Your task to perform on an android device: add a contact in the contacts app Image 0: 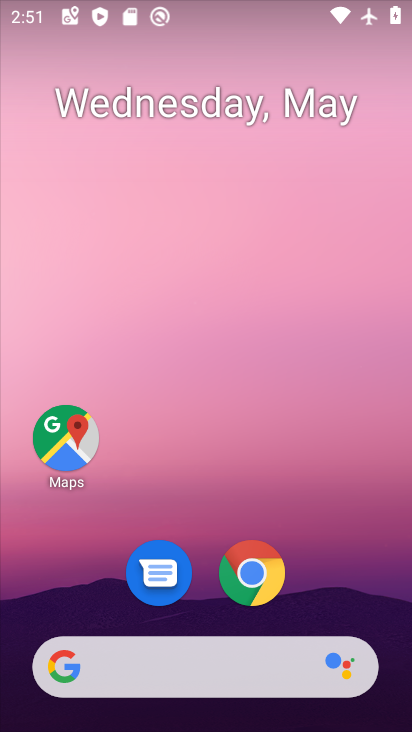
Step 0: drag from (324, 409) to (351, 44)
Your task to perform on an android device: add a contact in the contacts app Image 1: 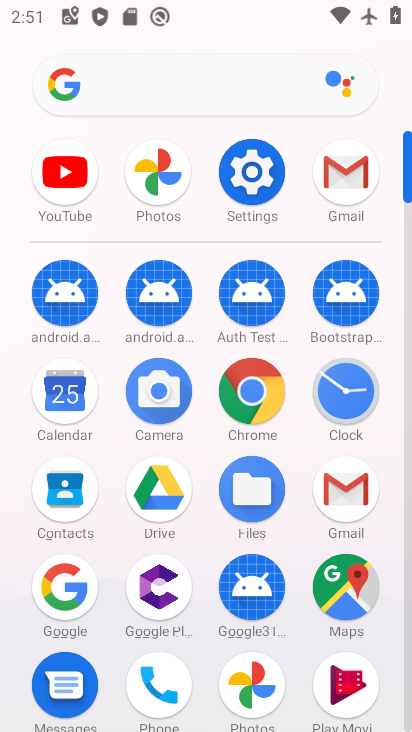
Step 1: click (65, 511)
Your task to perform on an android device: add a contact in the contacts app Image 2: 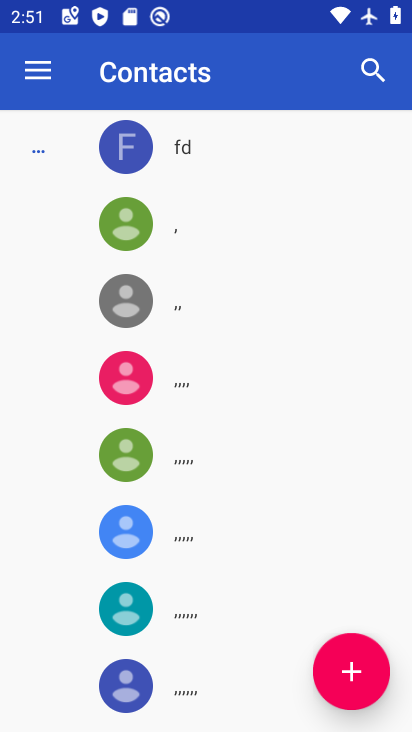
Step 2: click (366, 668)
Your task to perform on an android device: add a contact in the contacts app Image 3: 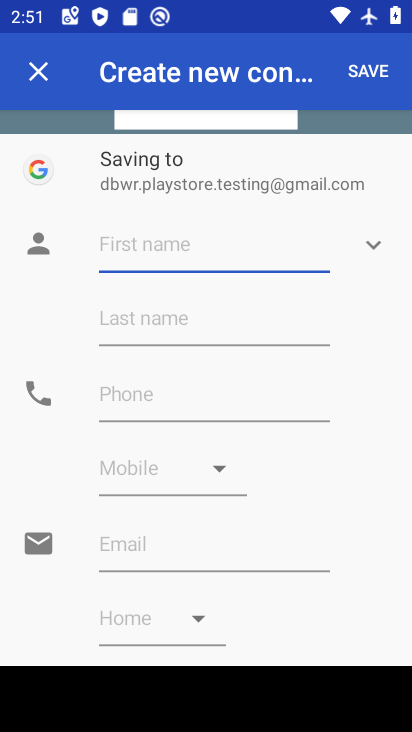
Step 3: type "zasqwerdfxcv"
Your task to perform on an android device: add a contact in the contacts app Image 4: 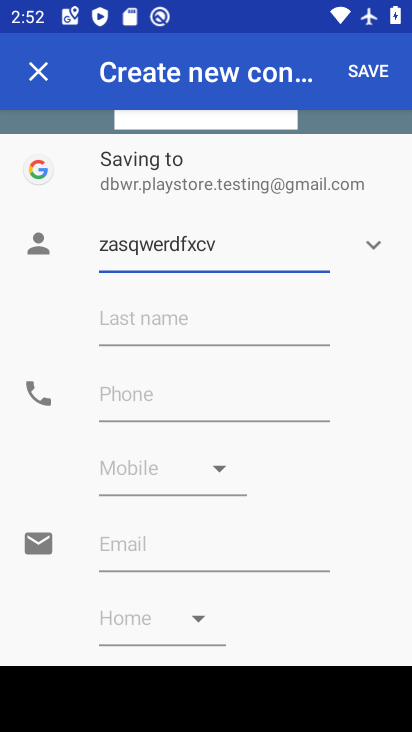
Step 4: click (122, 399)
Your task to perform on an android device: add a contact in the contacts app Image 5: 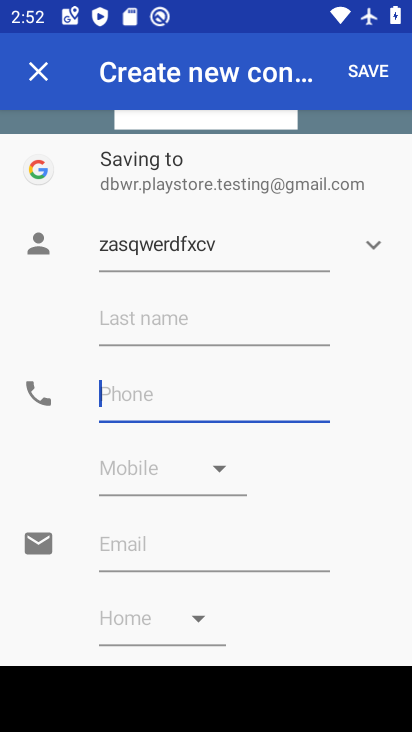
Step 5: type "9809876543"
Your task to perform on an android device: add a contact in the contacts app Image 6: 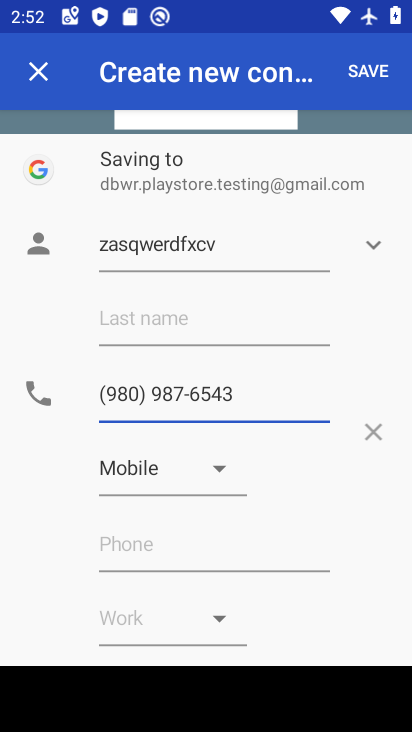
Step 6: click (367, 80)
Your task to perform on an android device: add a contact in the contacts app Image 7: 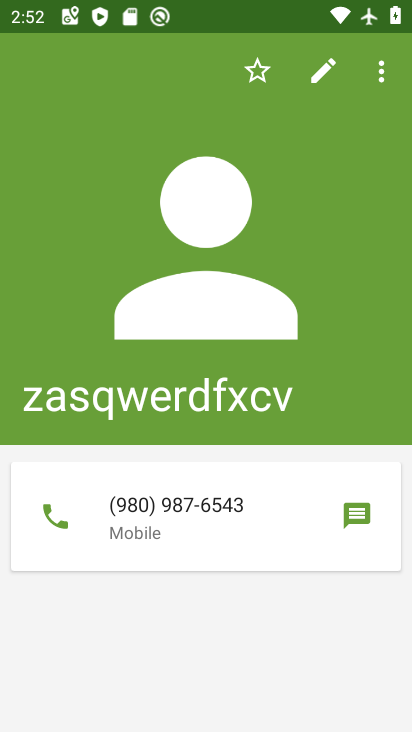
Step 7: task complete